Your task to perform on an android device: change notification settings in the gmail app Image 0: 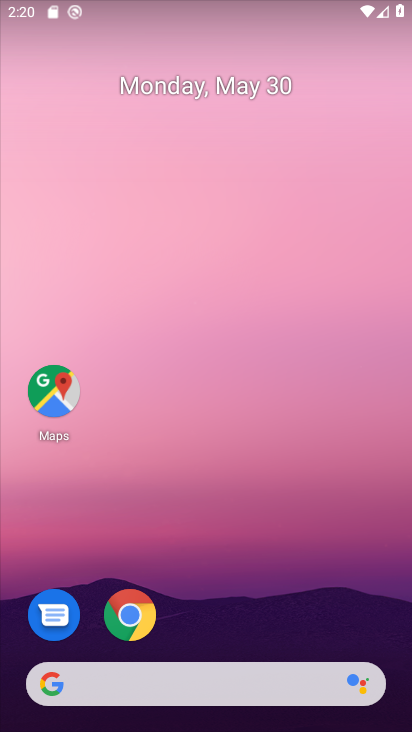
Step 0: drag from (259, 568) to (221, 18)
Your task to perform on an android device: change notification settings in the gmail app Image 1: 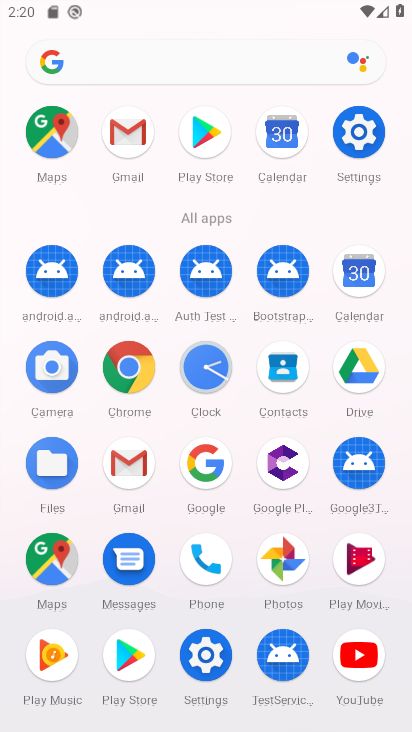
Step 1: click (133, 124)
Your task to perform on an android device: change notification settings in the gmail app Image 2: 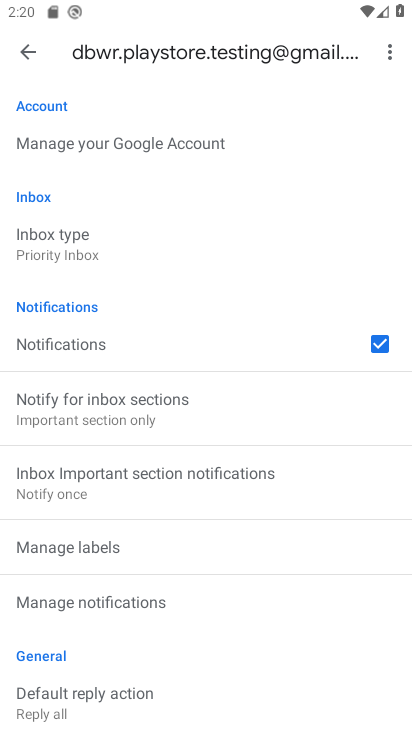
Step 2: drag from (158, 344) to (181, 641)
Your task to perform on an android device: change notification settings in the gmail app Image 3: 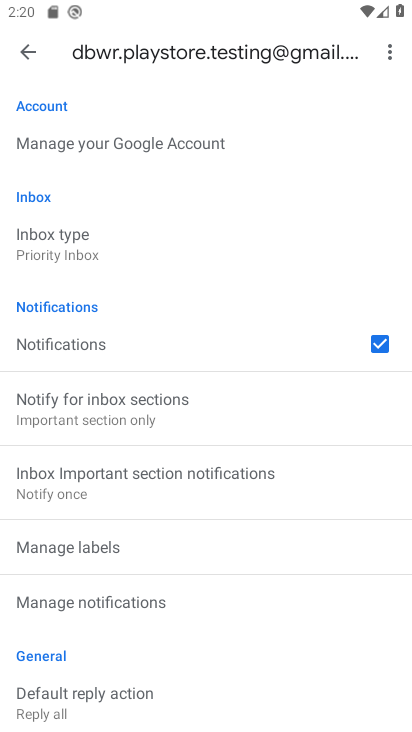
Step 3: click (197, 604)
Your task to perform on an android device: change notification settings in the gmail app Image 4: 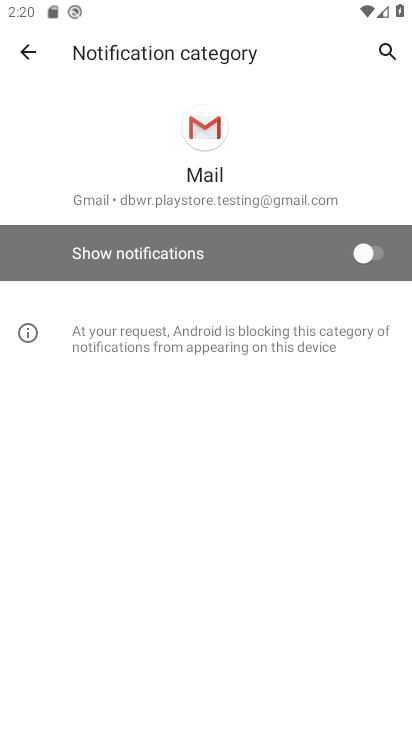
Step 4: click (371, 241)
Your task to perform on an android device: change notification settings in the gmail app Image 5: 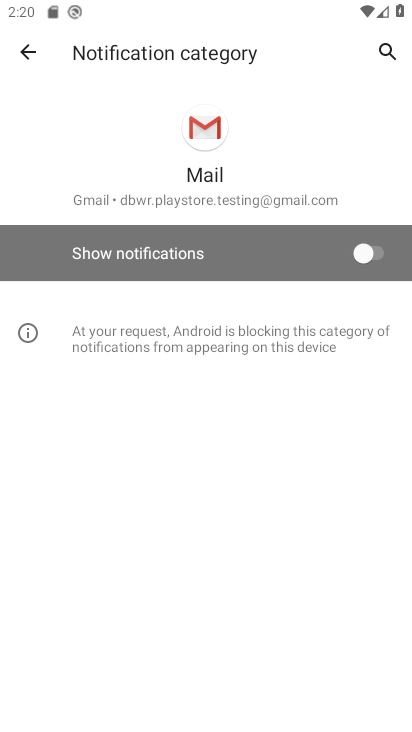
Step 5: click (378, 249)
Your task to perform on an android device: change notification settings in the gmail app Image 6: 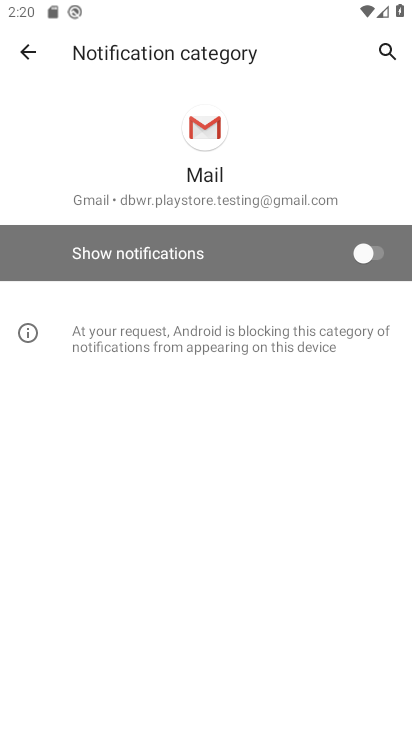
Step 6: click (23, 50)
Your task to perform on an android device: change notification settings in the gmail app Image 7: 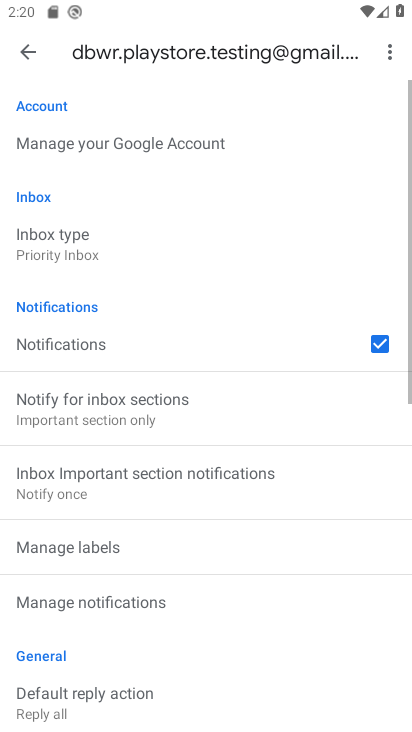
Step 7: click (23, 49)
Your task to perform on an android device: change notification settings in the gmail app Image 8: 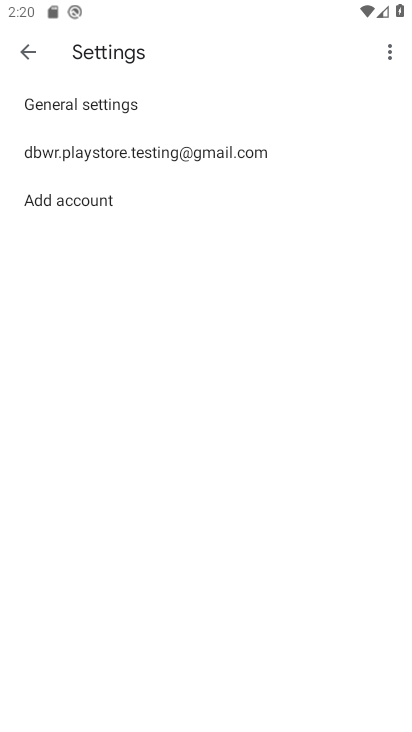
Step 8: click (103, 98)
Your task to perform on an android device: change notification settings in the gmail app Image 9: 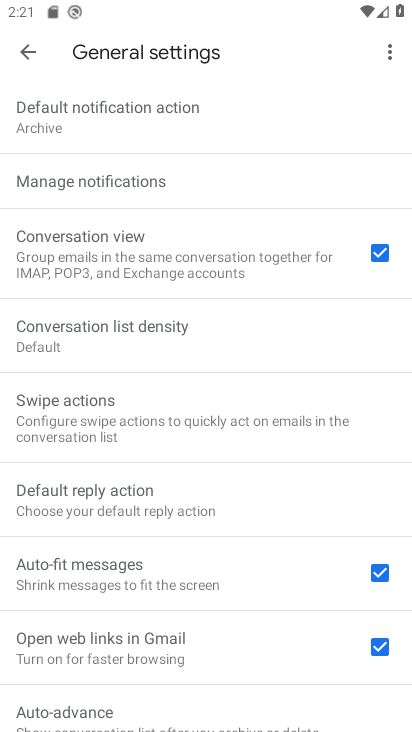
Step 9: click (215, 194)
Your task to perform on an android device: change notification settings in the gmail app Image 10: 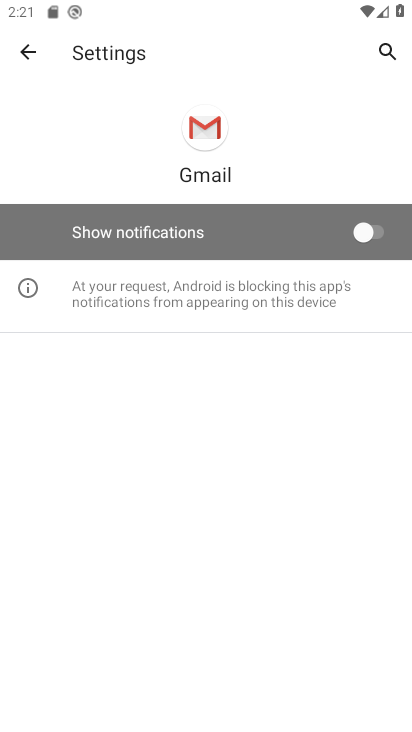
Step 10: click (361, 220)
Your task to perform on an android device: change notification settings in the gmail app Image 11: 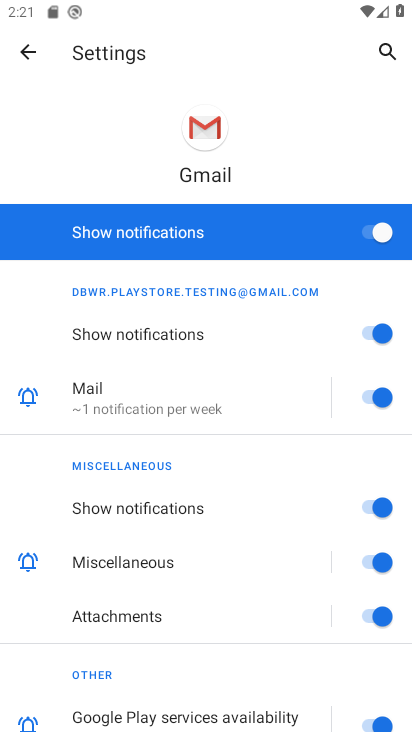
Step 11: click (31, 65)
Your task to perform on an android device: change notification settings in the gmail app Image 12: 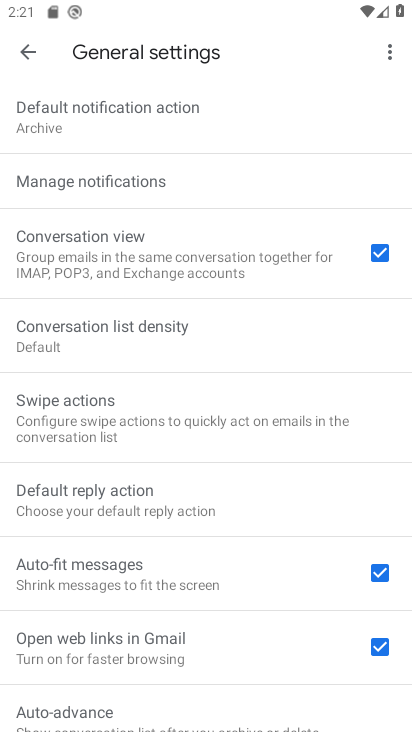
Step 12: click (208, 181)
Your task to perform on an android device: change notification settings in the gmail app Image 13: 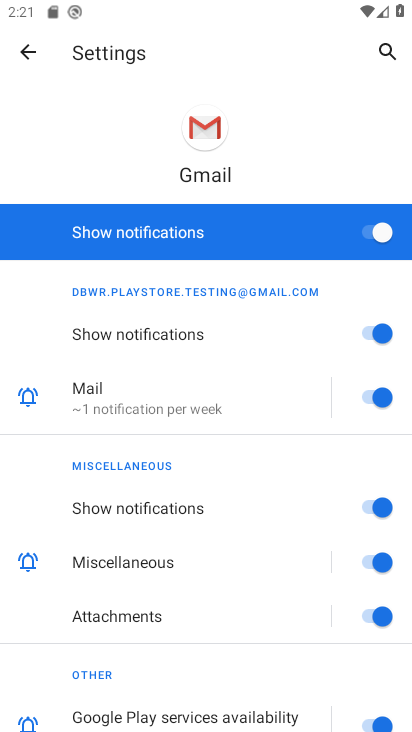
Step 13: click (25, 48)
Your task to perform on an android device: change notification settings in the gmail app Image 14: 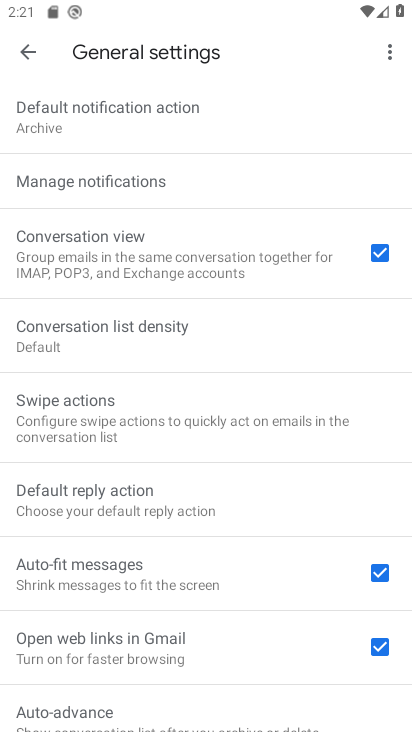
Step 14: task complete